Your task to perform on an android device: turn on showing notifications on the lock screen Image 0: 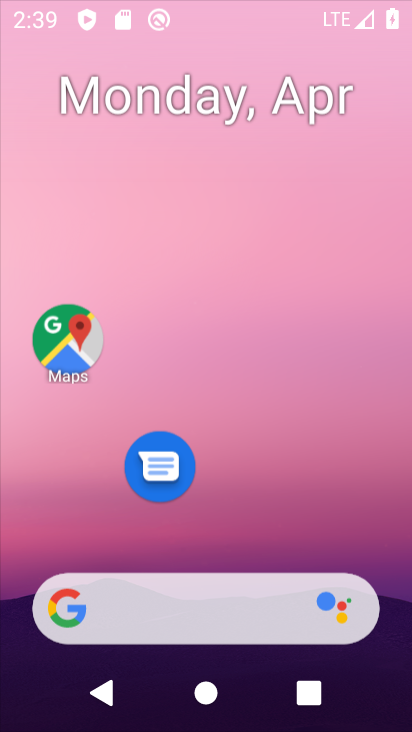
Step 0: click (347, 34)
Your task to perform on an android device: turn on showing notifications on the lock screen Image 1: 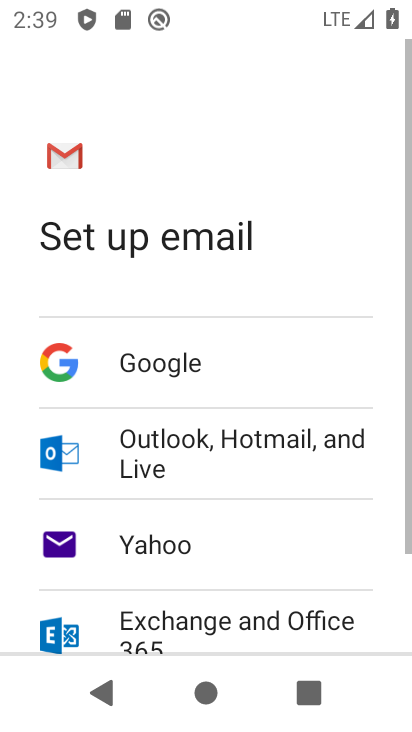
Step 1: press home button
Your task to perform on an android device: turn on showing notifications on the lock screen Image 2: 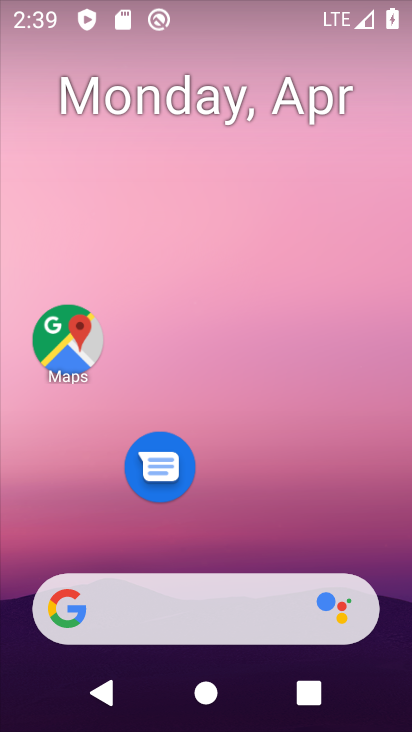
Step 2: drag from (266, 469) to (374, 24)
Your task to perform on an android device: turn on showing notifications on the lock screen Image 3: 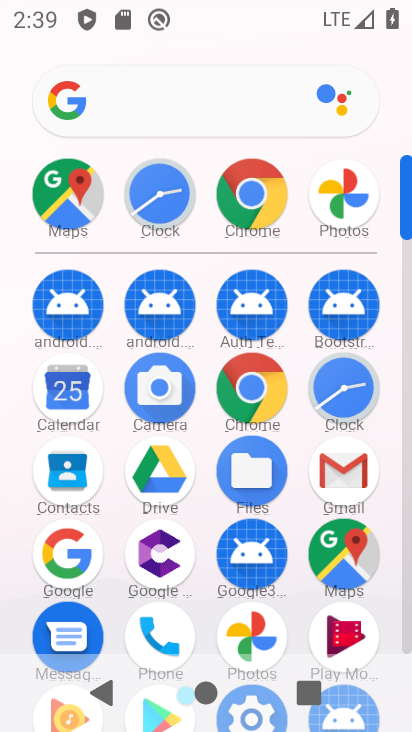
Step 3: drag from (267, 551) to (345, 149)
Your task to perform on an android device: turn on showing notifications on the lock screen Image 4: 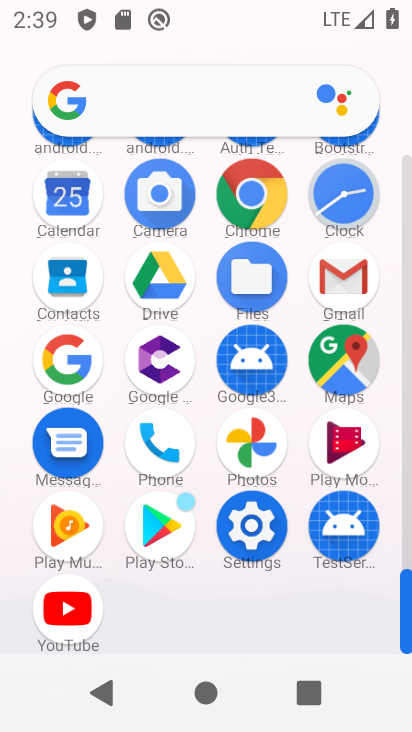
Step 4: click (254, 518)
Your task to perform on an android device: turn on showing notifications on the lock screen Image 5: 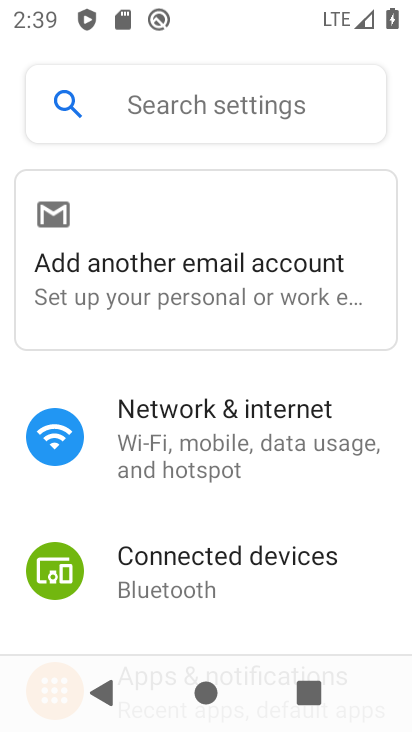
Step 5: drag from (230, 529) to (269, 401)
Your task to perform on an android device: turn on showing notifications on the lock screen Image 6: 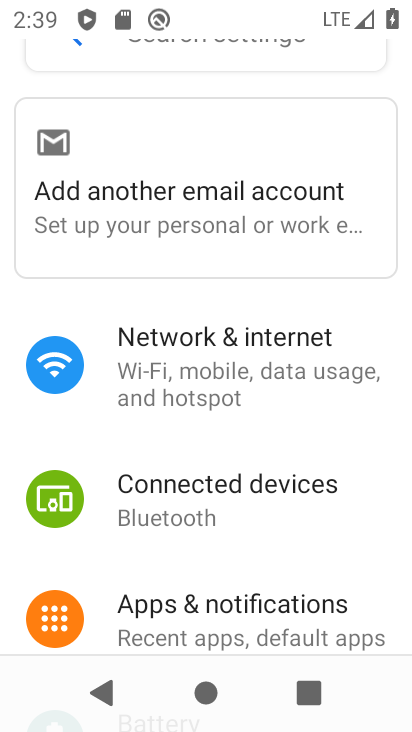
Step 6: click (291, 593)
Your task to perform on an android device: turn on showing notifications on the lock screen Image 7: 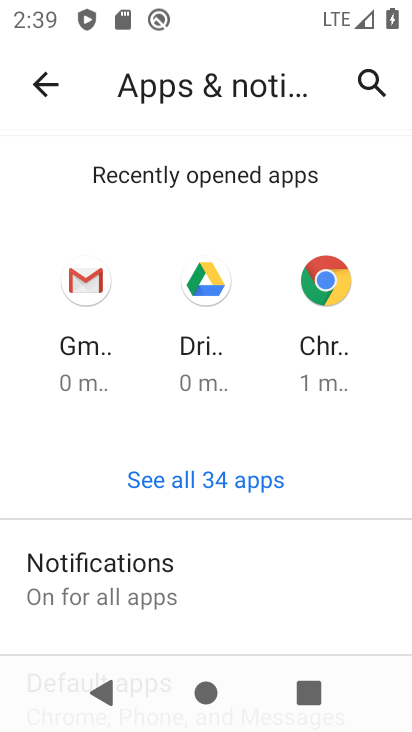
Step 7: click (277, 553)
Your task to perform on an android device: turn on showing notifications on the lock screen Image 8: 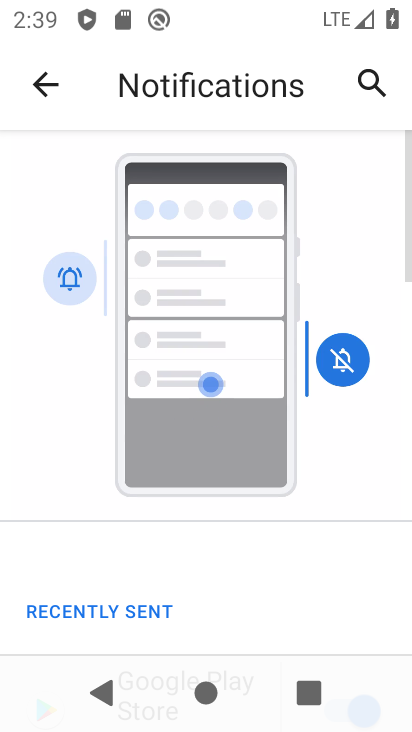
Step 8: drag from (277, 546) to (327, 223)
Your task to perform on an android device: turn on showing notifications on the lock screen Image 9: 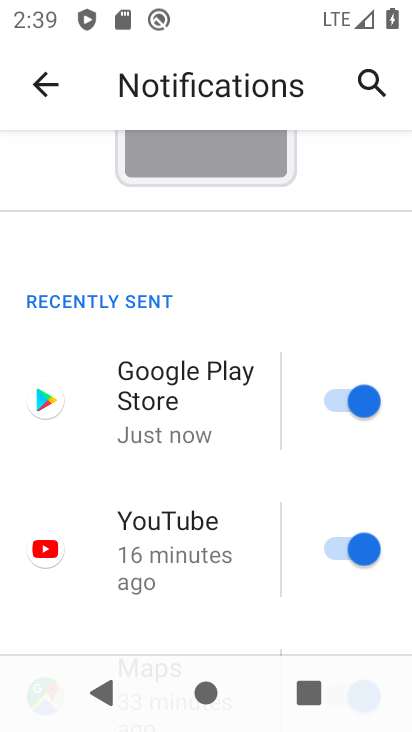
Step 9: drag from (251, 523) to (319, 179)
Your task to perform on an android device: turn on showing notifications on the lock screen Image 10: 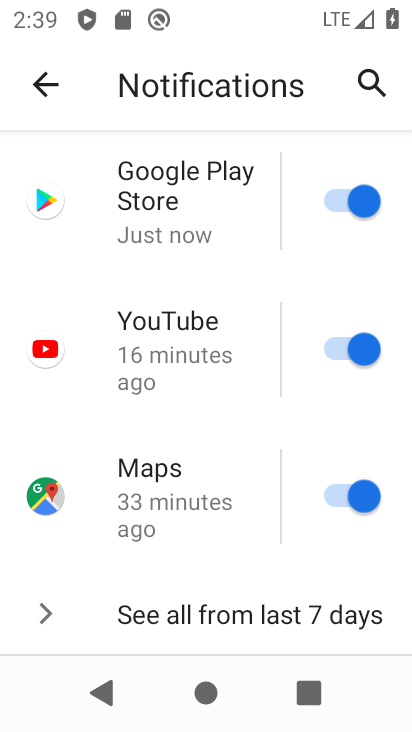
Step 10: drag from (272, 577) to (312, 136)
Your task to perform on an android device: turn on showing notifications on the lock screen Image 11: 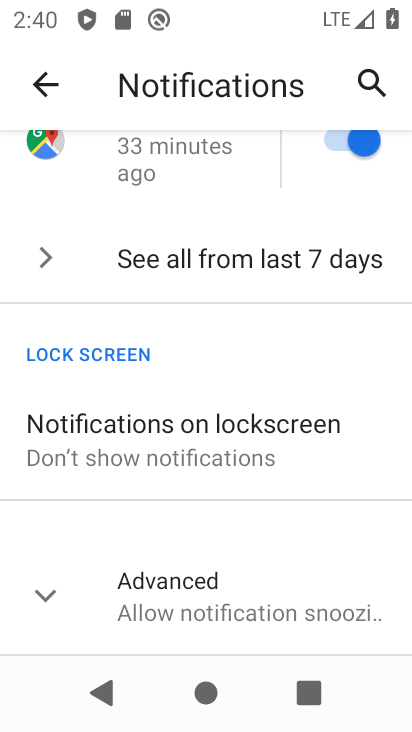
Step 11: click (266, 424)
Your task to perform on an android device: turn on showing notifications on the lock screen Image 12: 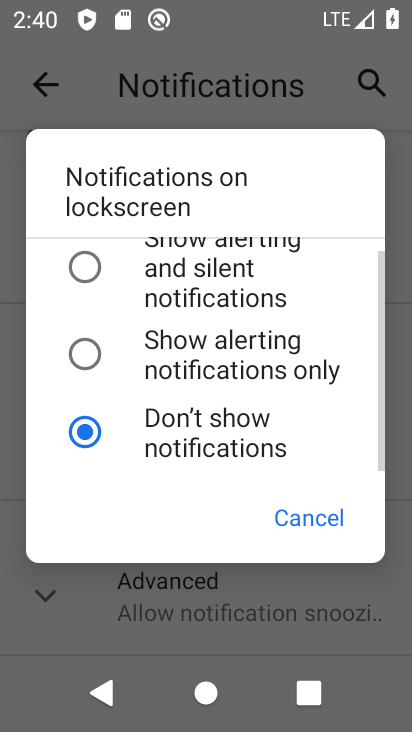
Step 12: click (248, 277)
Your task to perform on an android device: turn on showing notifications on the lock screen Image 13: 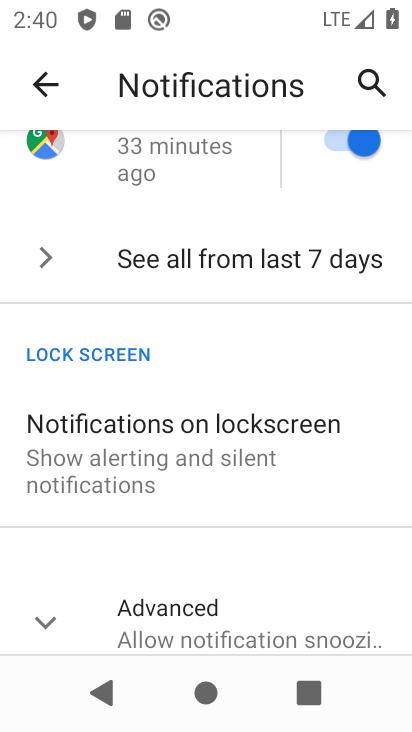
Step 13: task complete